Your task to perform on an android device: Search for Italian restaurants on Maps Image 0: 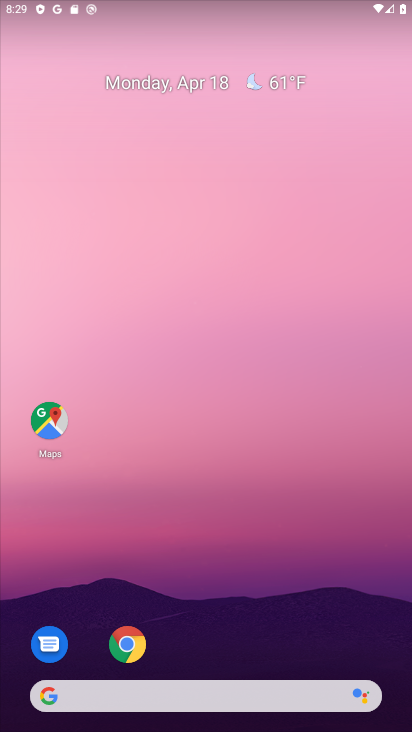
Step 0: click (55, 418)
Your task to perform on an android device: Search for Italian restaurants on Maps Image 1: 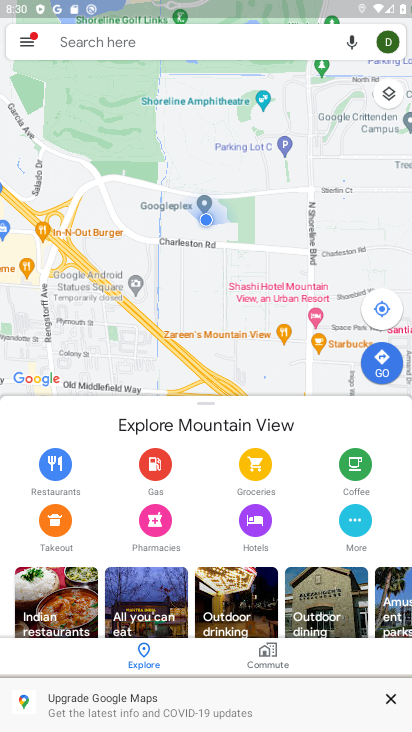
Step 1: click (160, 37)
Your task to perform on an android device: Search for Italian restaurants on Maps Image 2: 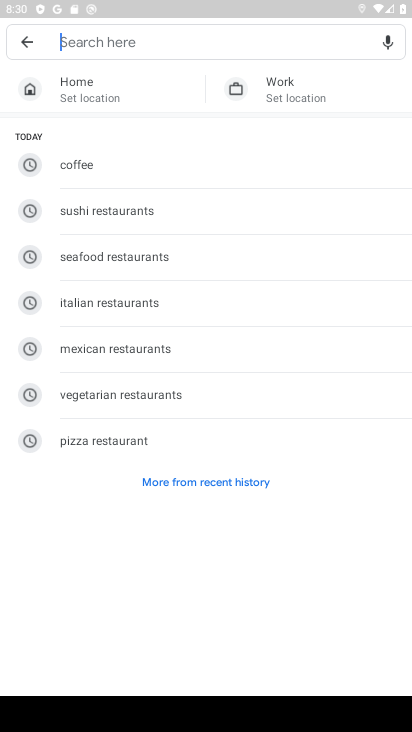
Step 2: click (123, 301)
Your task to perform on an android device: Search for Italian restaurants on Maps Image 3: 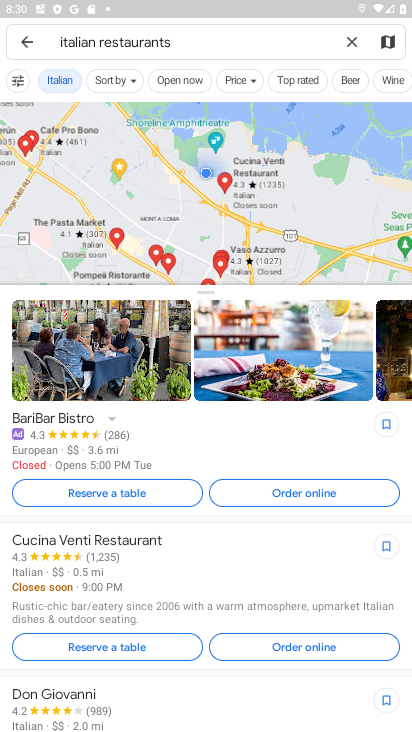
Step 3: task complete